Your task to perform on an android device: turn off sleep mode Image 0: 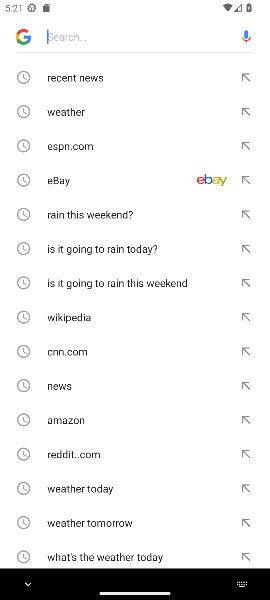
Step 0: press home button
Your task to perform on an android device: turn off sleep mode Image 1: 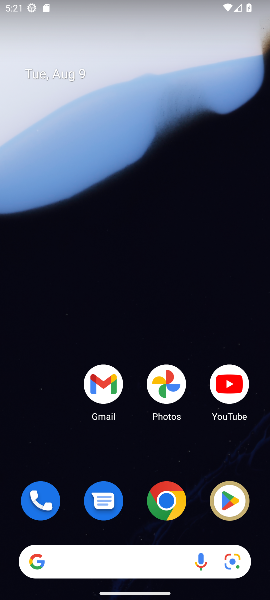
Step 1: drag from (167, 572) to (170, 121)
Your task to perform on an android device: turn off sleep mode Image 2: 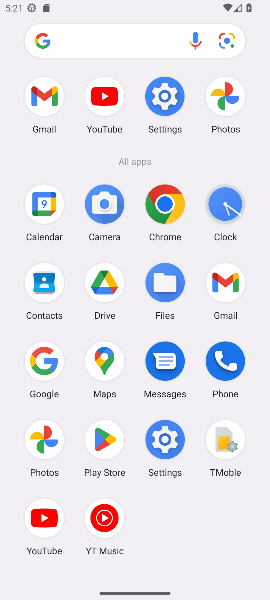
Step 2: click (166, 451)
Your task to perform on an android device: turn off sleep mode Image 3: 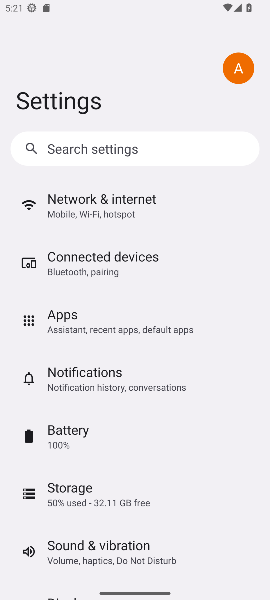
Step 3: drag from (104, 470) to (125, 136)
Your task to perform on an android device: turn off sleep mode Image 4: 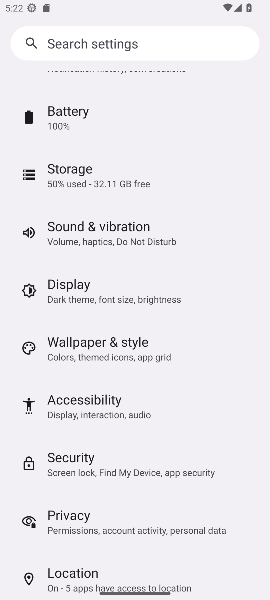
Step 4: drag from (94, 537) to (145, 200)
Your task to perform on an android device: turn off sleep mode Image 5: 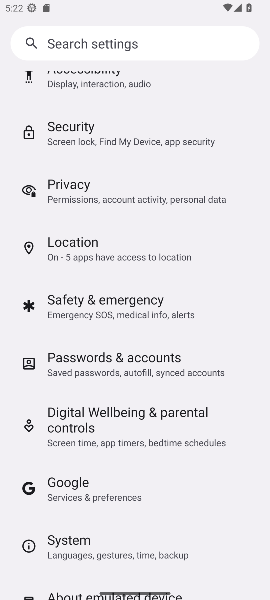
Step 5: drag from (129, 235) to (111, 499)
Your task to perform on an android device: turn off sleep mode Image 6: 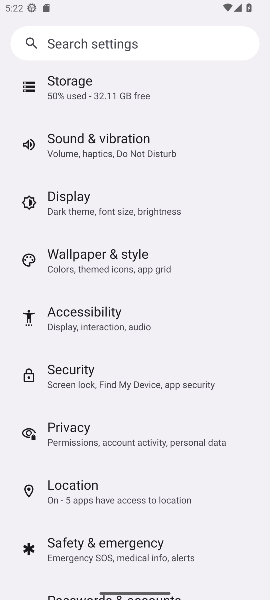
Step 6: click (90, 211)
Your task to perform on an android device: turn off sleep mode Image 7: 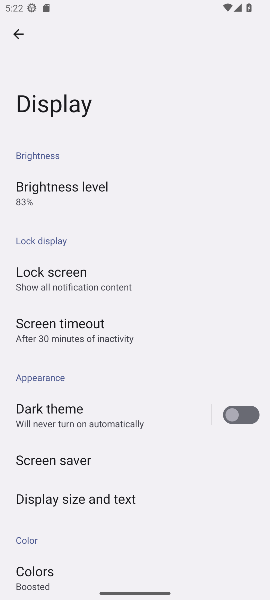
Step 7: click (42, 322)
Your task to perform on an android device: turn off sleep mode Image 8: 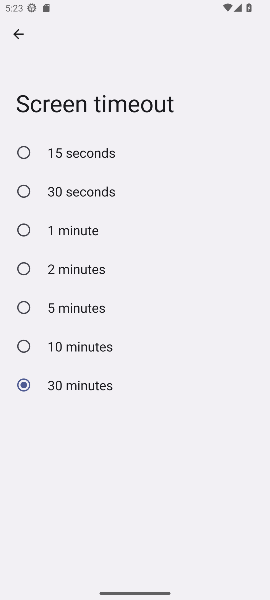
Step 8: task complete